Your task to perform on an android device: Open Google Chrome and click the shortcut for Amazon.com Image 0: 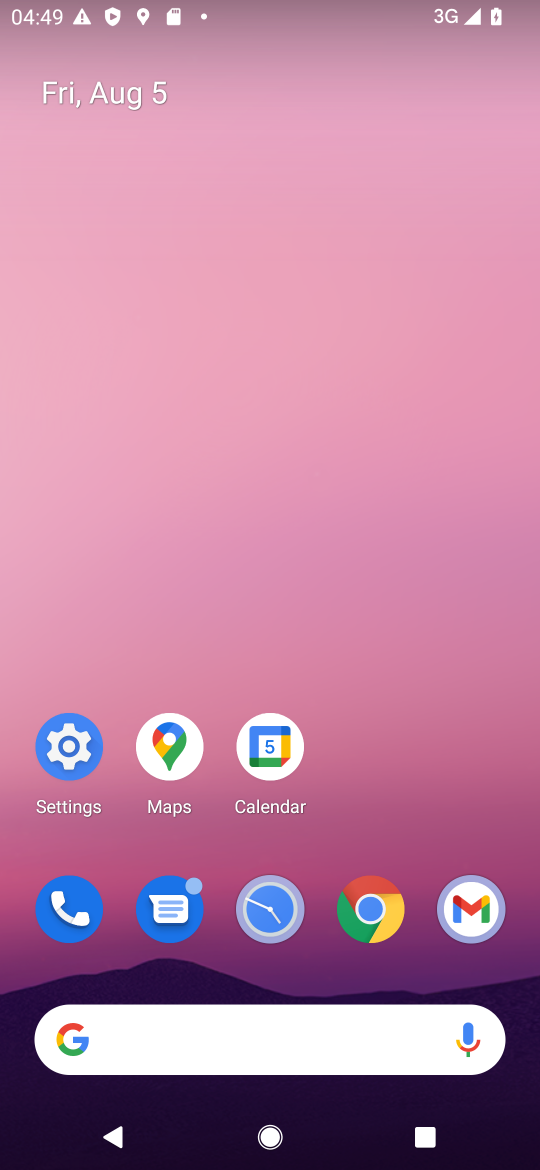
Step 0: click (364, 907)
Your task to perform on an android device: Open Google Chrome and click the shortcut for Amazon.com Image 1: 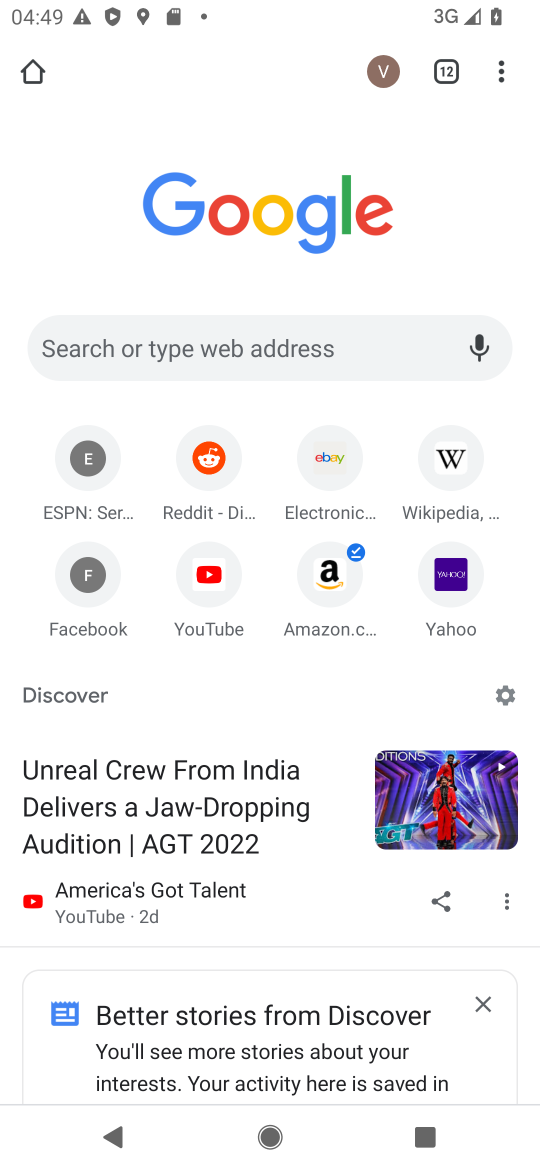
Step 1: click (313, 566)
Your task to perform on an android device: Open Google Chrome and click the shortcut for Amazon.com Image 2: 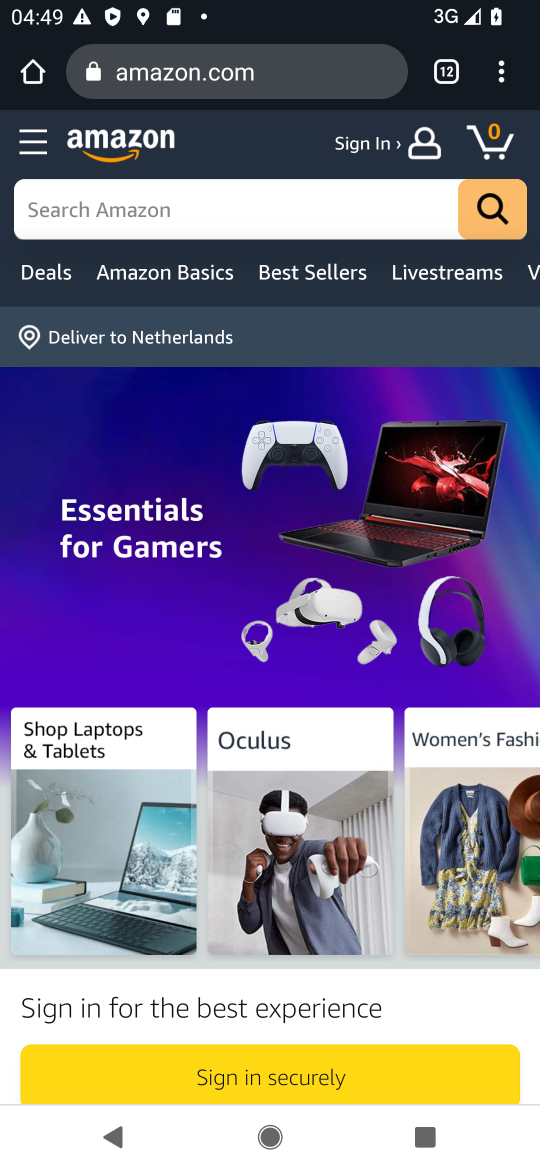
Step 2: task complete